Your task to perform on an android device: open app "Microsoft Outlook" (install if not already installed) and go to login screen Image 0: 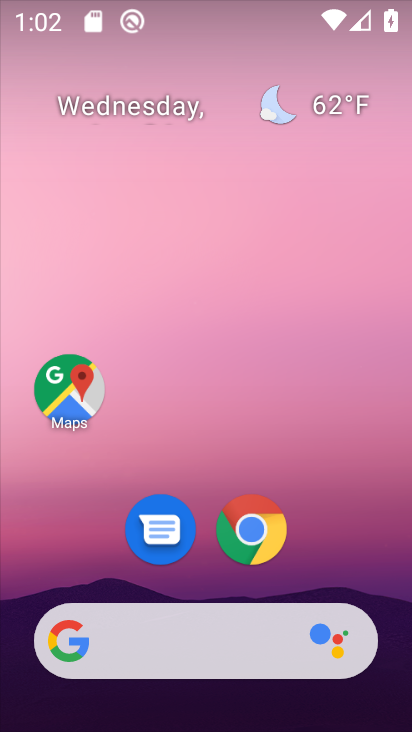
Step 0: drag from (185, 578) to (190, 131)
Your task to perform on an android device: open app "Microsoft Outlook" (install if not already installed) and go to login screen Image 1: 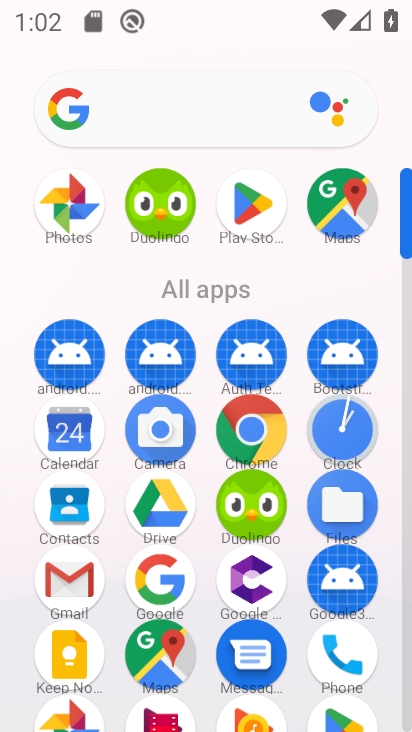
Step 1: click (255, 213)
Your task to perform on an android device: open app "Microsoft Outlook" (install if not already installed) and go to login screen Image 2: 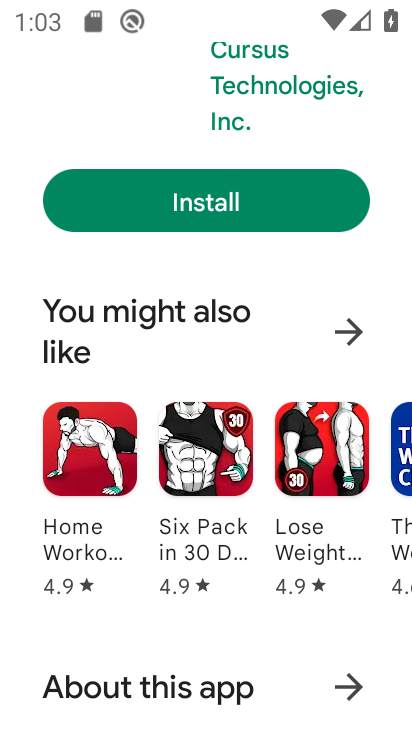
Step 2: drag from (72, 194) to (65, 672)
Your task to perform on an android device: open app "Microsoft Outlook" (install if not already installed) and go to login screen Image 3: 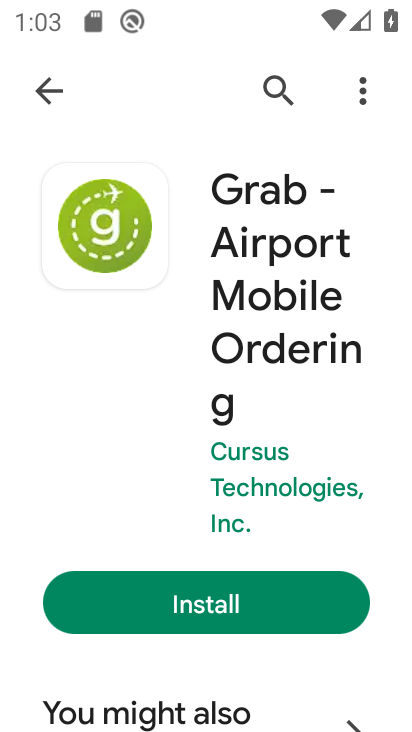
Step 3: click (44, 73)
Your task to perform on an android device: open app "Microsoft Outlook" (install if not already installed) and go to login screen Image 4: 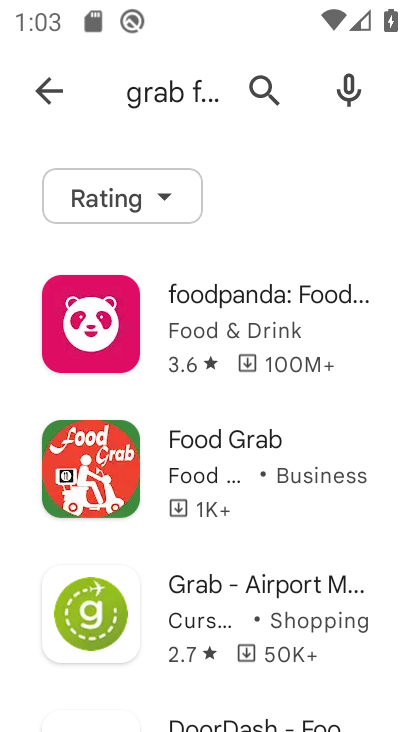
Step 4: click (44, 73)
Your task to perform on an android device: open app "Microsoft Outlook" (install if not already installed) and go to login screen Image 5: 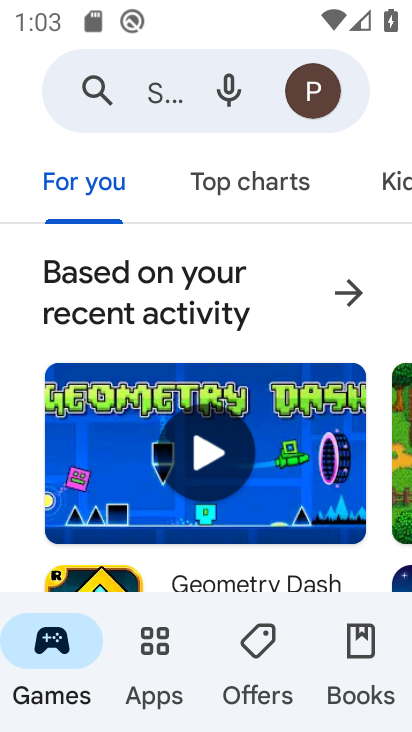
Step 5: click (140, 69)
Your task to perform on an android device: open app "Microsoft Outlook" (install if not already installed) and go to login screen Image 6: 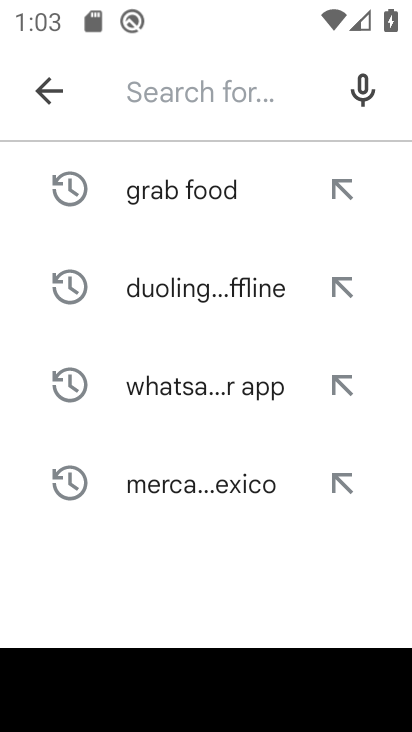
Step 6: type "Microsoft Outlook "
Your task to perform on an android device: open app "Microsoft Outlook" (install if not already installed) and go to login screen Image 7: 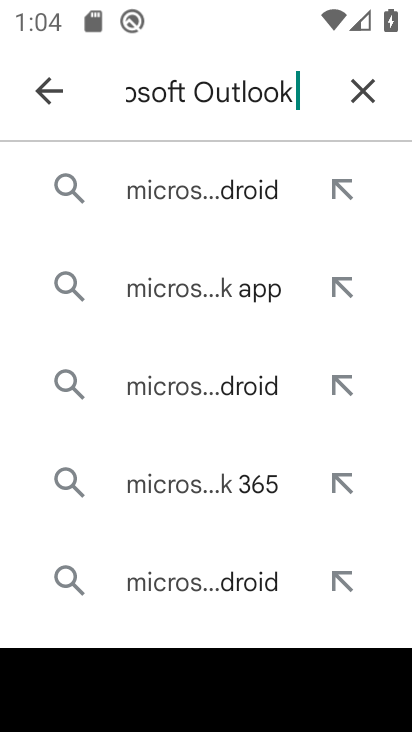
Step 7: click (208, 90)
Your task to perform on an android device: open app "Microsoft Outlook" (install if not already installed) and go to login screen Image 8: 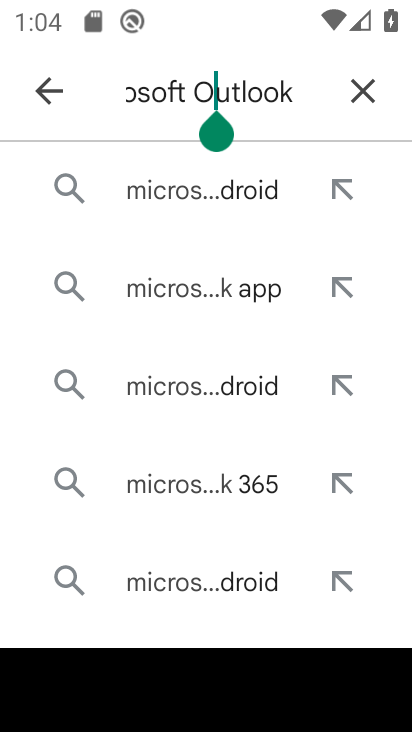
Step 8: click (158, 174)
Your task to perform on an android device: open app "Microsoft Outlook" (install if not already installed) and go to login screen Image 9: 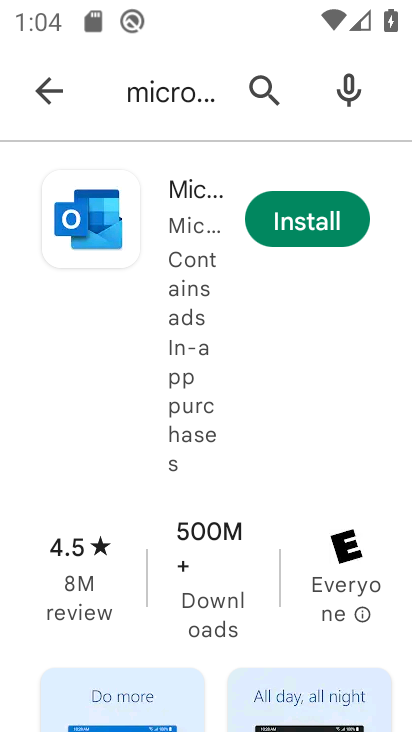
Step 9: click (331, 224)
Your task to perform on an android device: open app "Microsoft Outlook" (install if not already installed) and go to login screen Image 10: 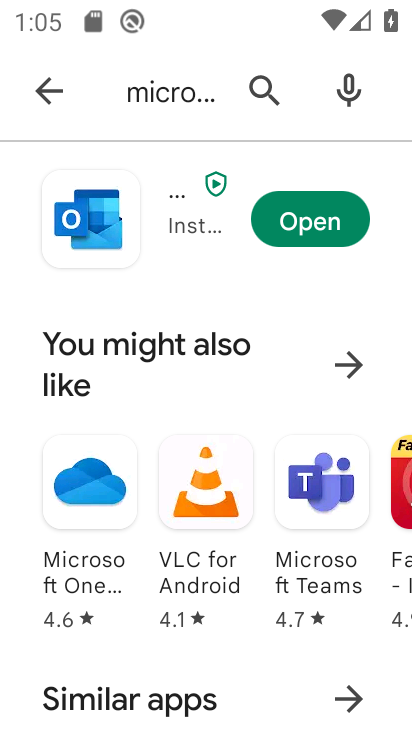
Step 10: task complete